Your task to perform on an android device: check battery use Image 0: 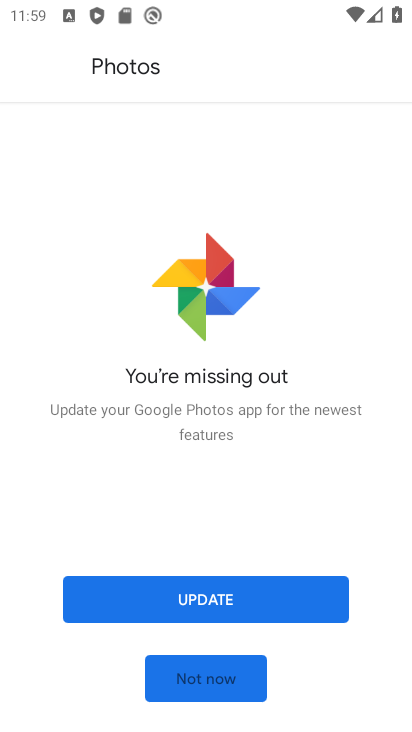
Step 0: click (236, 687)
Your task to perform on an android device: check battery use Image 1: 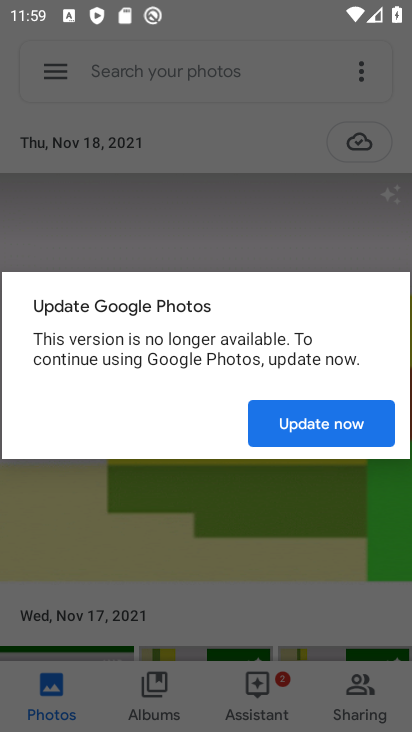
Step 1: press home button
Your task to perform on an android device: check battery use Image 2: 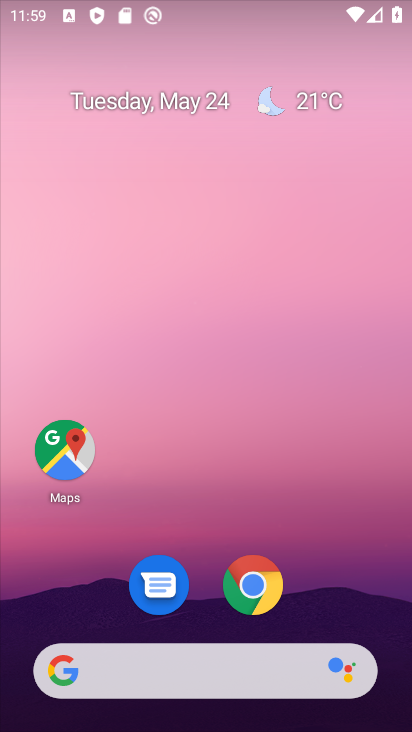
Step 2: drag from (309, 500) to (410, 39)
Your task to perform on an android device: check battery use Image 3: 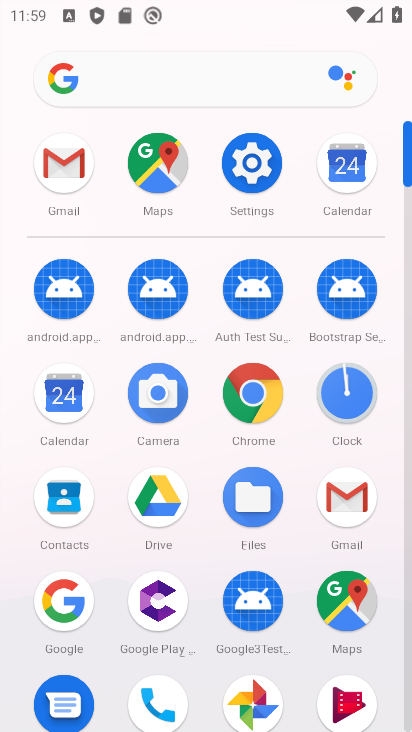
Step 3: click (257, 169)
Your task to perform on an android device: check battery use Image 4: 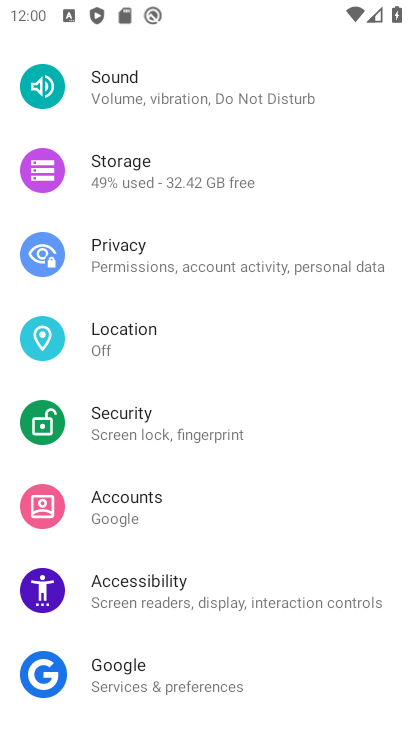
Step 4: drag from (251, 302) to (266, 609)
Your task to perform on an android device: check battery use Image 5: 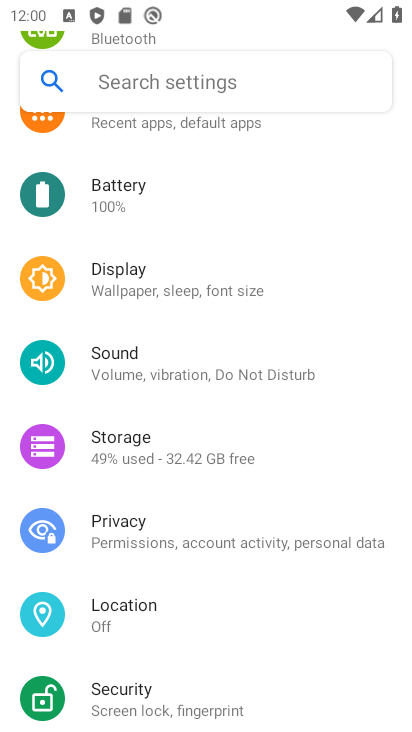
Step 5: click (198, 190)
Your task to perform on an android device: check battery use Image 6: 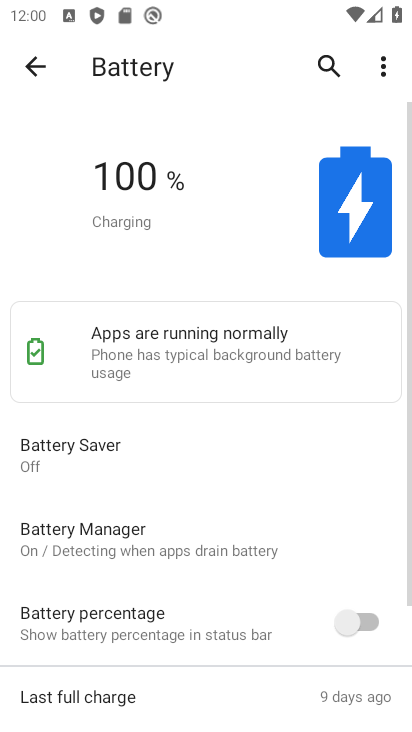
Step 6: click (375, 67)
Your task to perform on an android device: check battery use Image 7: 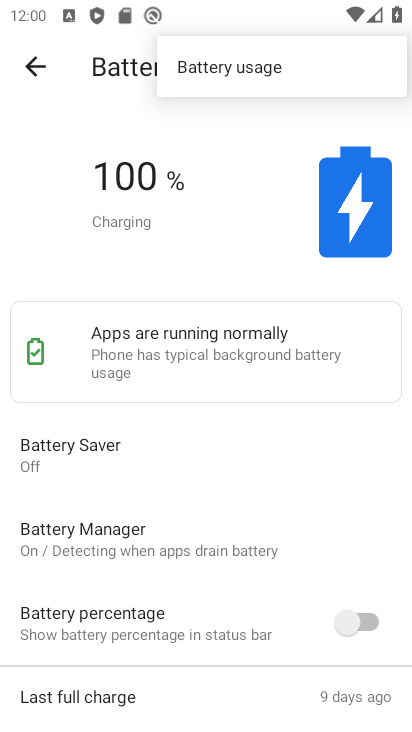
Step 7: click (305, 70)
Your task to perform on an android device: check battery use Image 8: 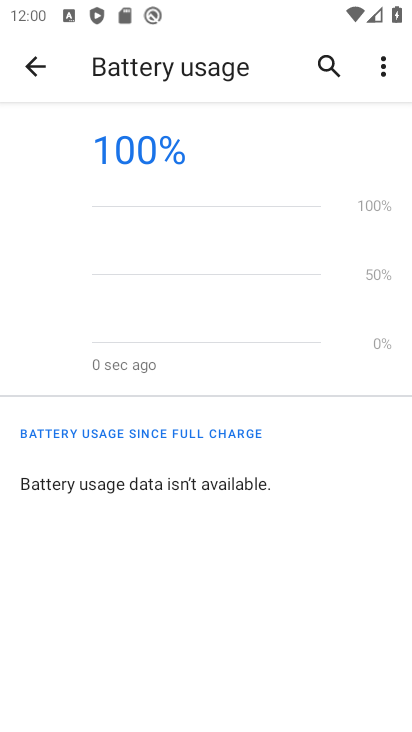
Step 8: task complete